Your task to perform on an android device: change timer sound Image 0: 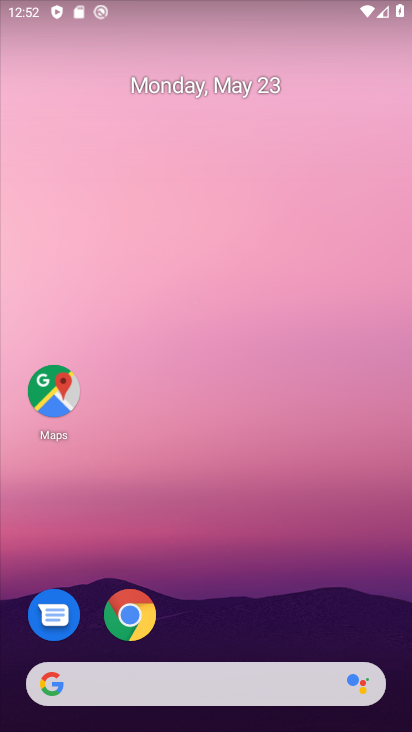
Step 0: drag from (245, 655) to (86, 104)
Your task to perform on an android device: change timer sound Image 1: 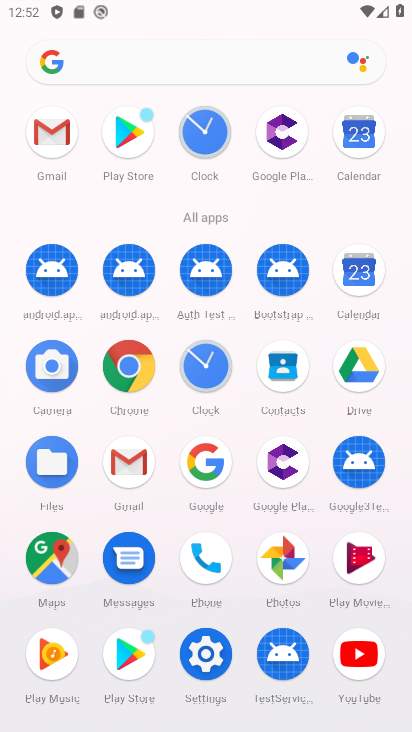
Step 1: click (86, 104)
Your task to perform on an android device: change timer sound Image 2: 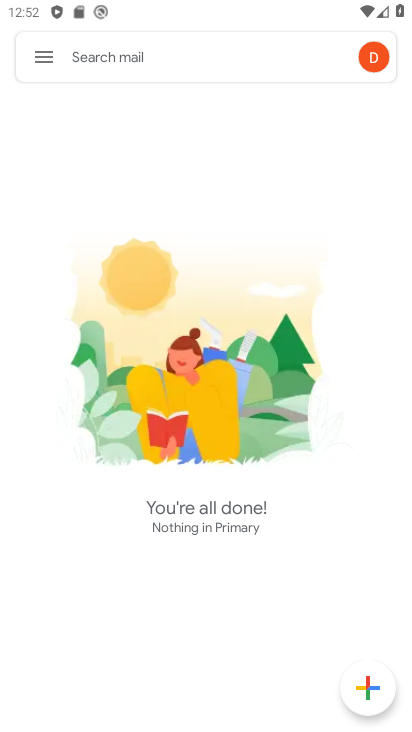
Step 2: press home button
Your task to perform on an android device: change timer sound Image 3: 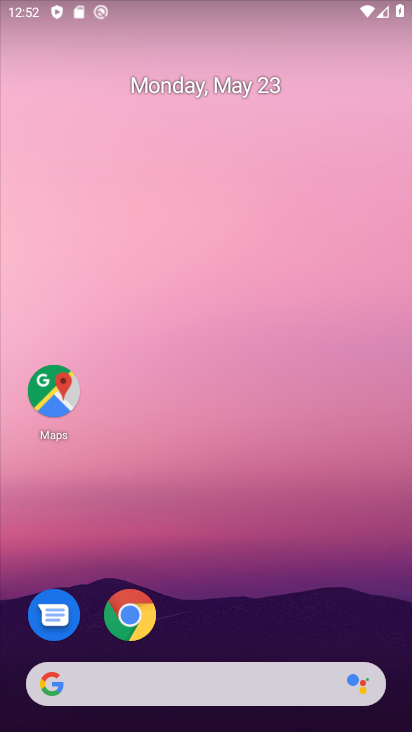
Step 3: drag from (194, 648) to (37, 25)
Your task to perform on an android device: change timer sound Image 4: 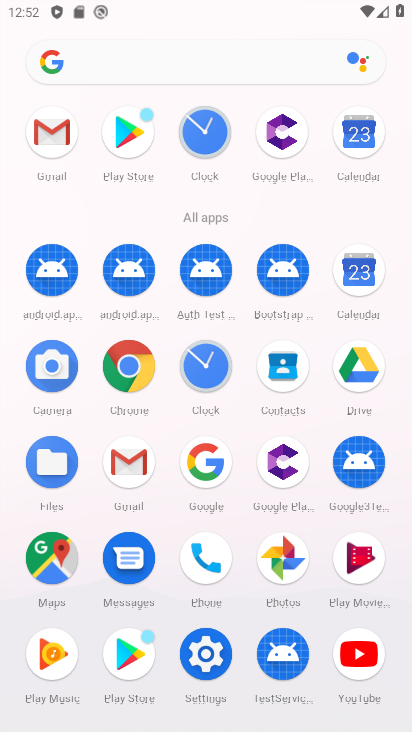
Step 4: click (213, 359)
Your task to perform on an android device: change timer sound Image 5: 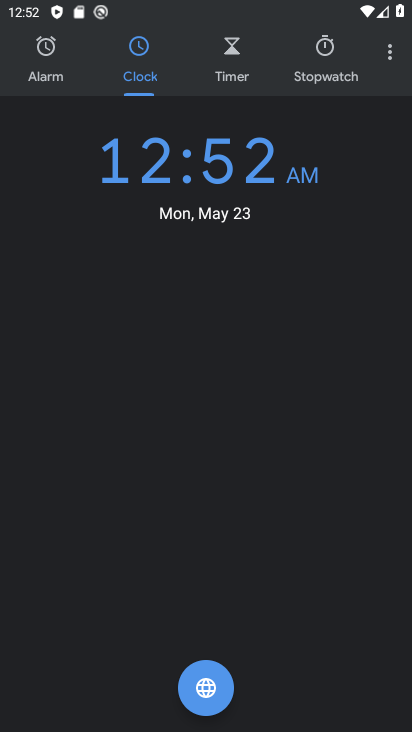
Step 5: click (396, 55)
Your task to perform on an android device: change timer sound Image 6: 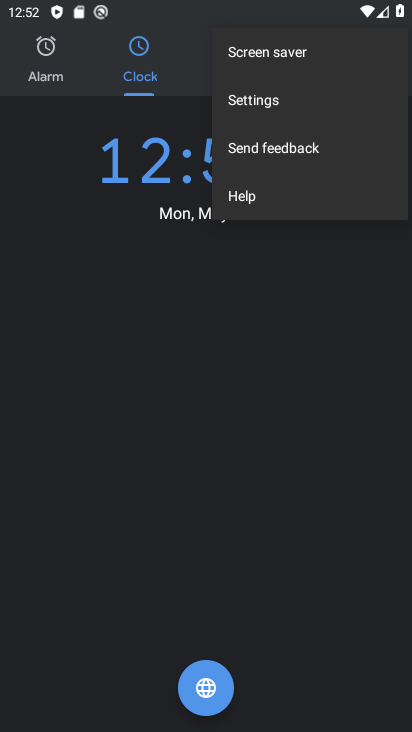
Step 6: click (242, 108)
Your task to perform on an android device: change timer sound Image 7: 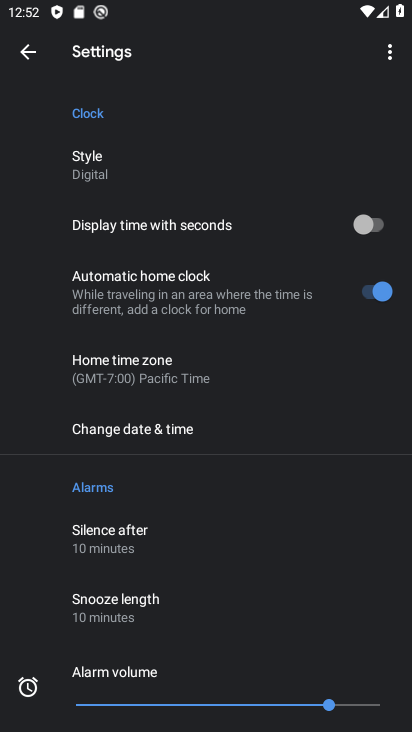
Step 7: click (190, 434)
Your task to perform on an android device: change timer sound Image 8: 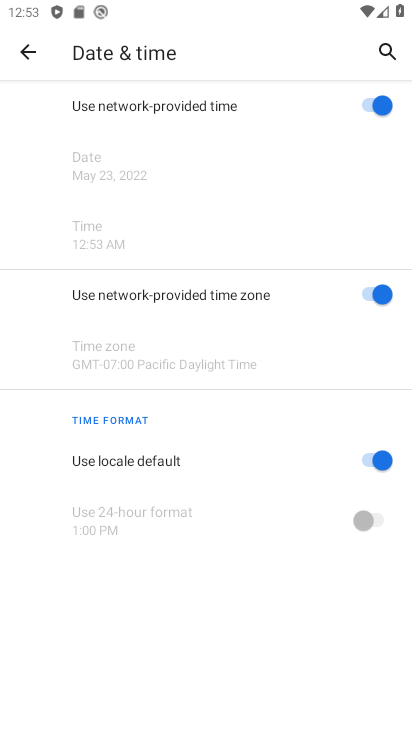
Step 8: click (35, 36)
Your task to perform on an android device: change timer sound Image 9: 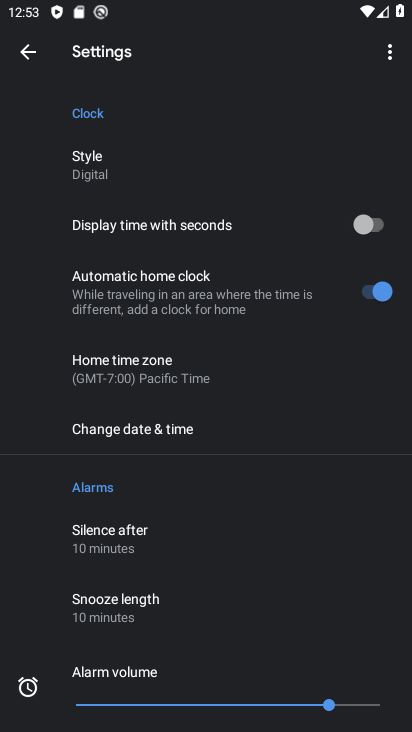
Step 9: drag from (154, 611) to (126, 124)
Your task to perform on an android device: change timer sound Image 10: 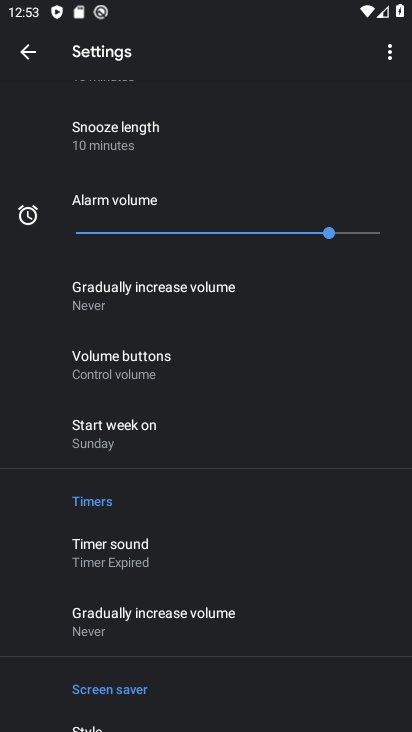
Step 10: click (152, 531)
Your task to perform on an android device: change timer sound Image 11: 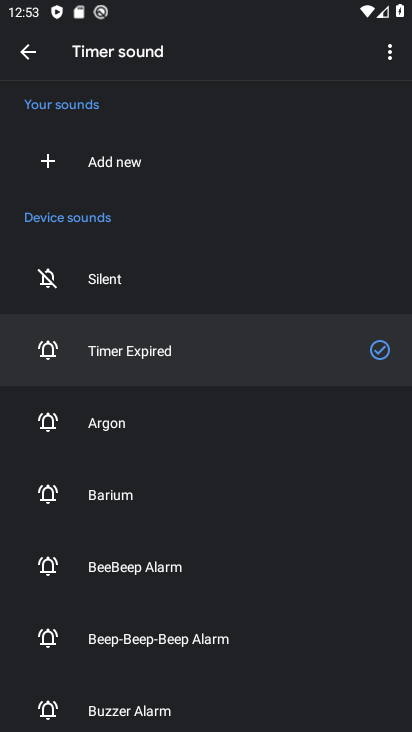
Step 11: click (142, 502)
Your task to perform on an android device: change timer sound Image 12: 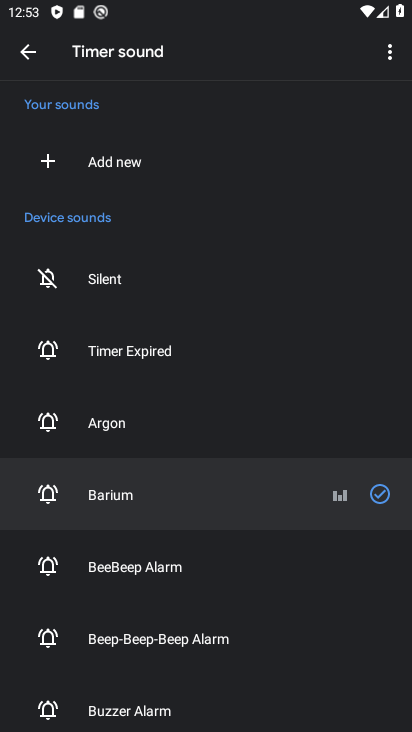
Step 12: task complete